Your task to perform on an android device: Go to display settings Image 0: 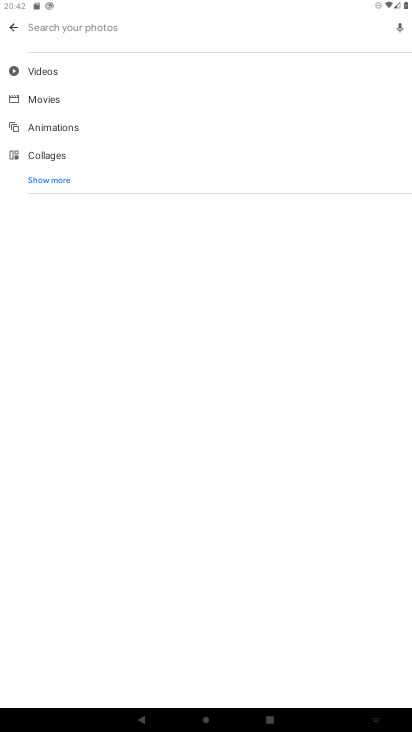
Step 0: press home button
Your task to perform on an android device: Go to display settings Image 1: 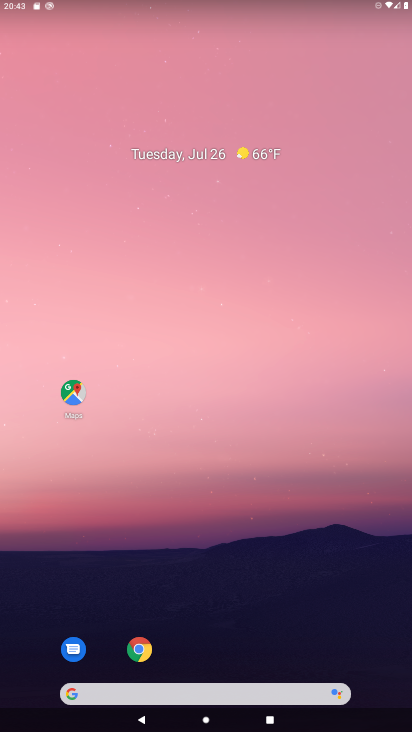
Step 1: drag from (220, 661) to (248, 54)
Your task to perform on an android device: Go to display settings Image 2: 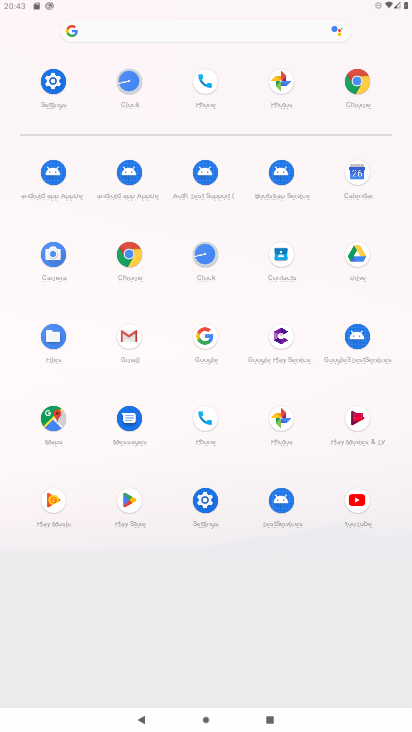
Step 2: click (52, 81)
Your task to perform on an android device: Go to display settings Image 3: 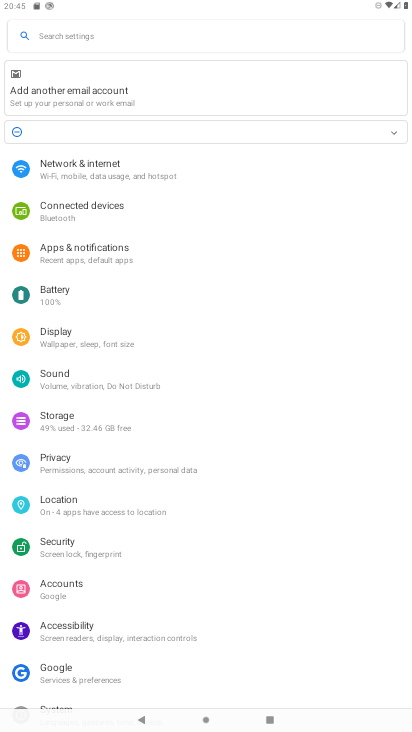
Step 3: click (102, 342)
Your task to perform on an android device: Go to display settings Image 4: 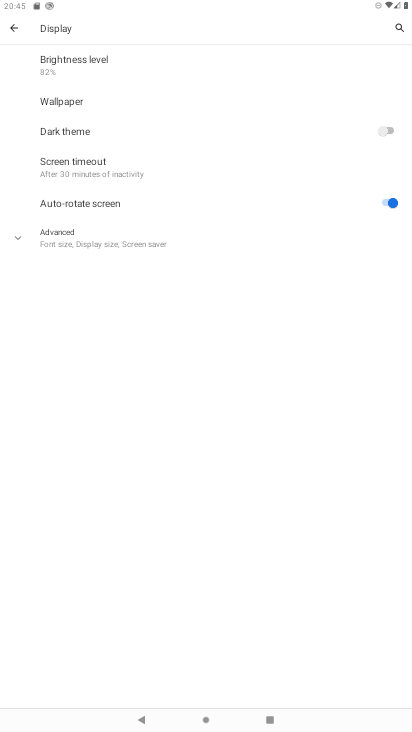
Step 4: task complete